Your task to perform on an android device: move an email to a new category in the gmail app Image 0: 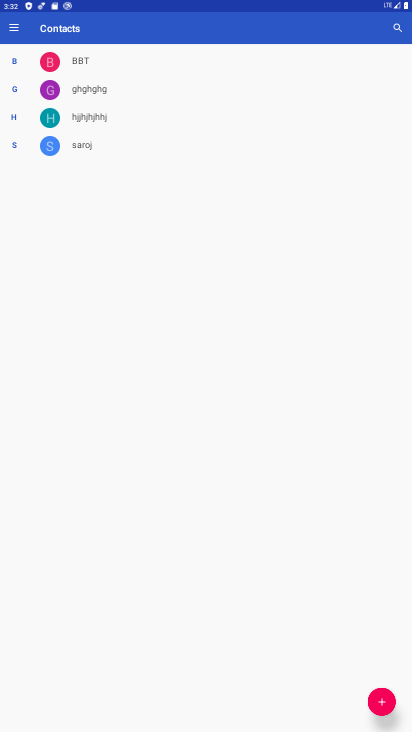
Step 0: press home button
Your task to perform on an android device: move an email to a new category in the gmail app Image 1: 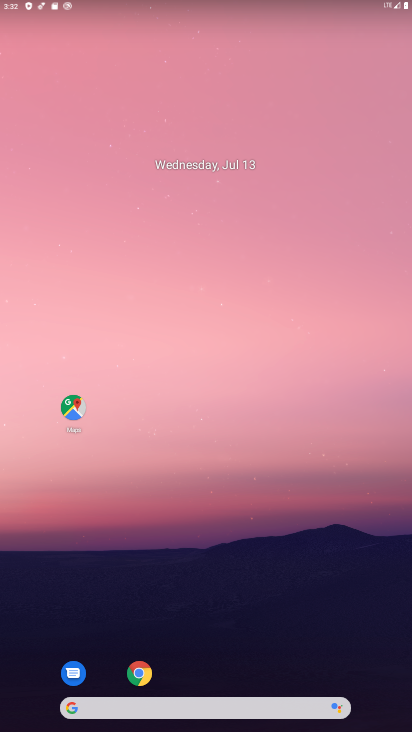
Step 1: drag from (206, 672) to (206, 159)
Your task to perform on an android device: move an email to a new category in the gmail app Image 2: 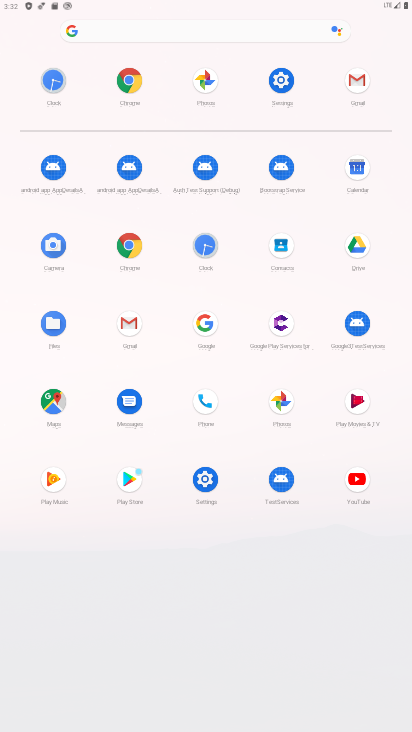
Step 2: click (132, 320)
Your task to perform on an android device: move an email to a new category in the gmail app Image 3: 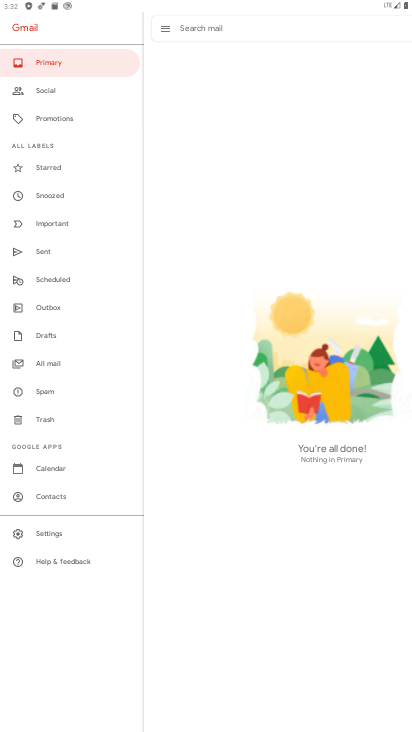
Step 3: task complete